Your task to perform on an android device: change notification settings in the gmail app Image 0: 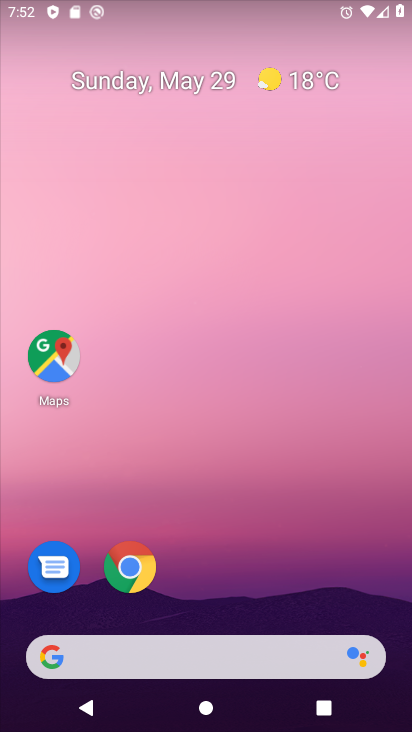
Step 0: drag from (402, 710) to (356, 69)
Your task to perform on an android device: change notification settings in the gmail app Image 1: 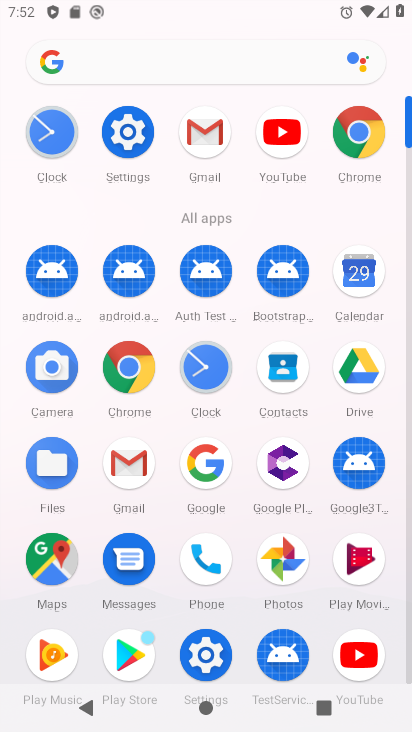
Step 1: click (205, 134)
Your task to perform on an android device: change notification settings in the gmail app Image 2: 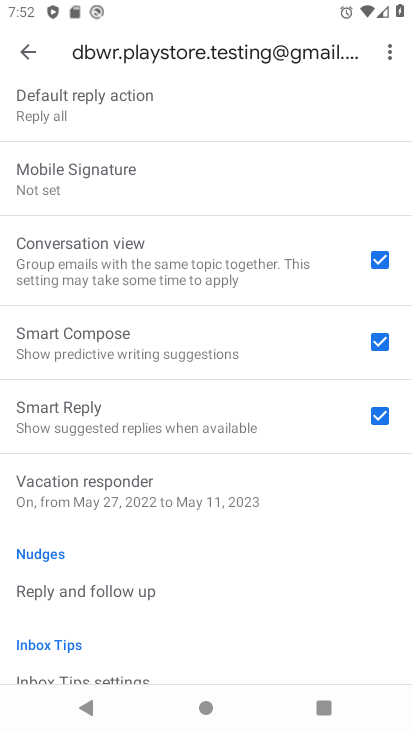
Step 2: click (30, 50)
Your task to perform on an android device: change notification settings in the gmail app Image 3: 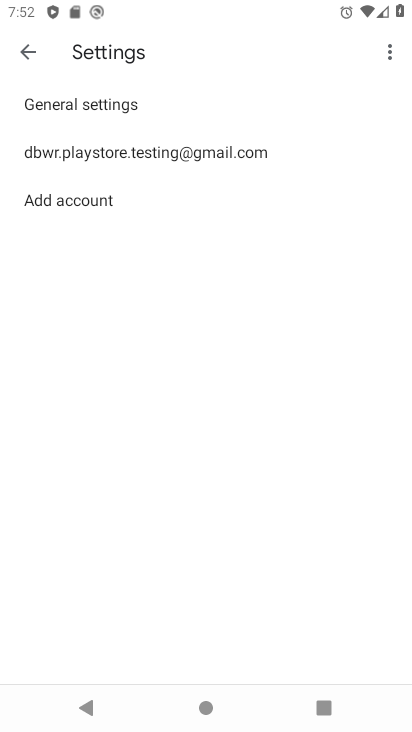
Step 3: click (59, 96)
Your task to perform on an android device: change notification settings in the gmail app Image 4: 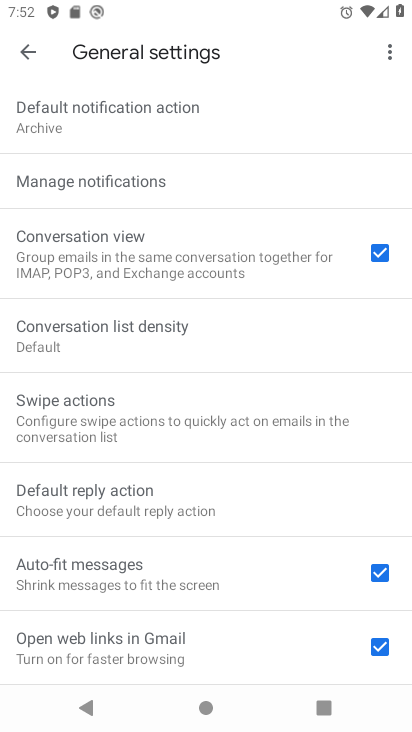
Step 4: click (98, 189)
Your task to perform on an android device: change notification settings in the gmail app Image 5: 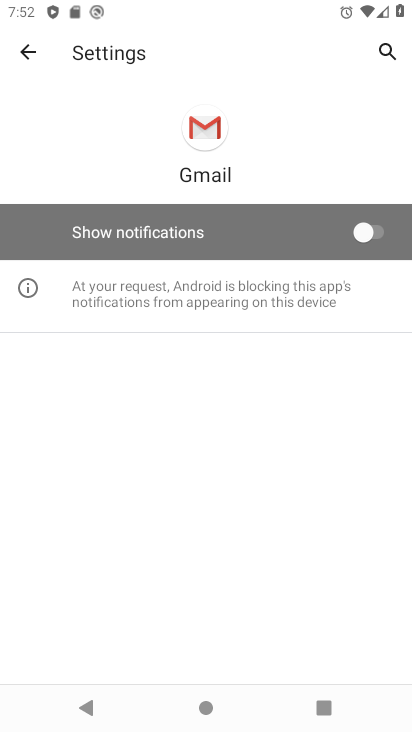
Step 5: click (374, 232)
Your task to perform on an android device: change notification settings in the gmail app Image 6: 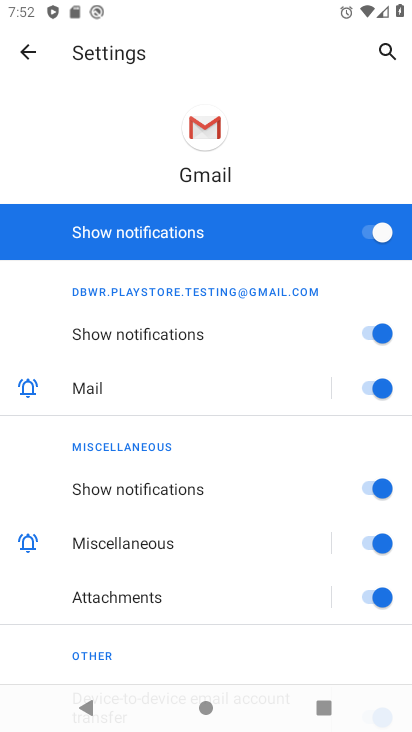
Step 6: task complete